Your task to perform on an android device: remove spam from my inbox in the gmail app Image 0: 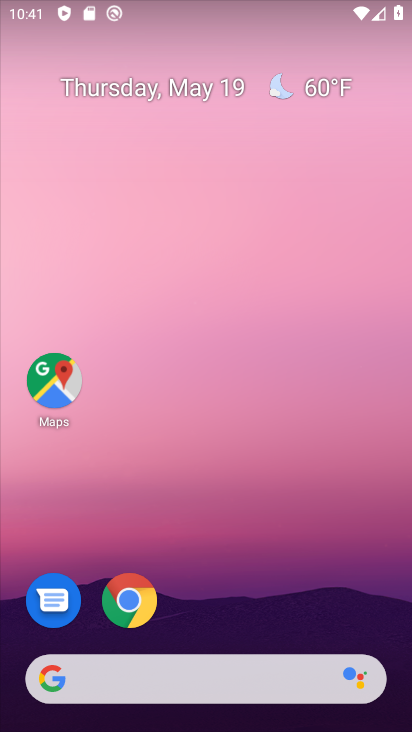
Step 0: drag from (381, 627) to (391, 412)
Your task to perform on an android device: remove spam from my inbox in the gmail app Image 1: 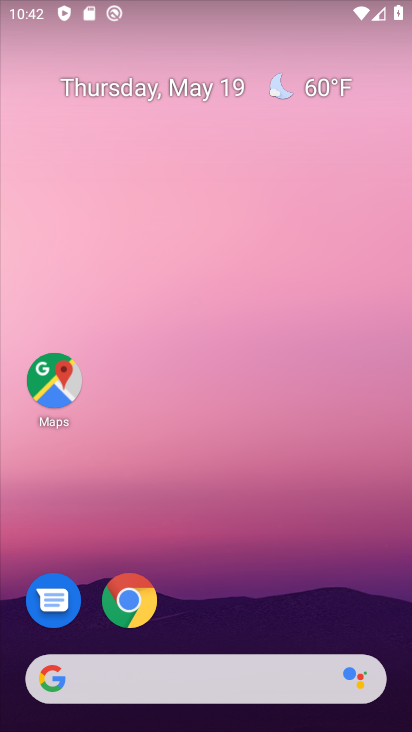
Step 1: drag from (355, 599) to (376, 240)
Your task to perform on an android device: remove spam from my inbox in the gmail app Image 2: 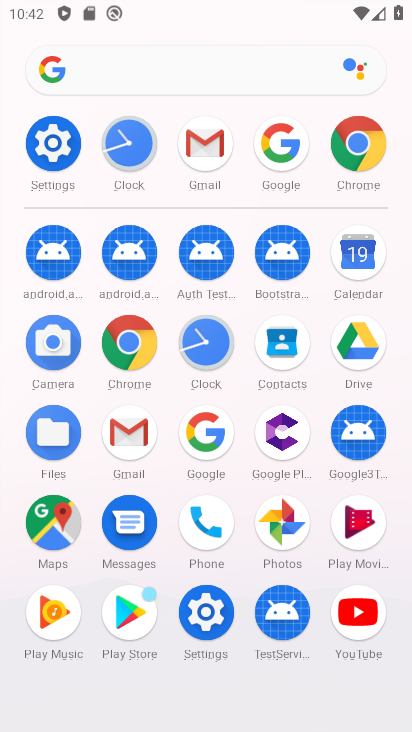
Step 2: click (143, 446)
Your task to perform on an android device: remove spam from my inbox in the gmail app Image 3: 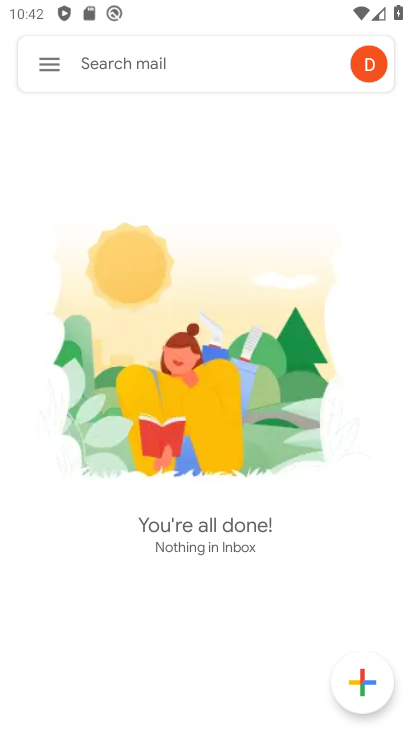
Step 3: click (66, 57)
Your task to perform on an android device: remove spam from my inbox in the gmail app Image 4: 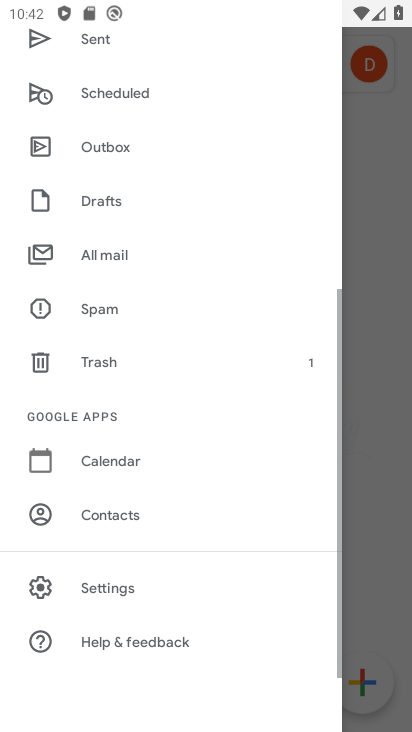
Step 4: drag from (267, 481) to (269, 344)
Your task to perform on an android device: remove spam from my inbox in the gmail app Image 5: 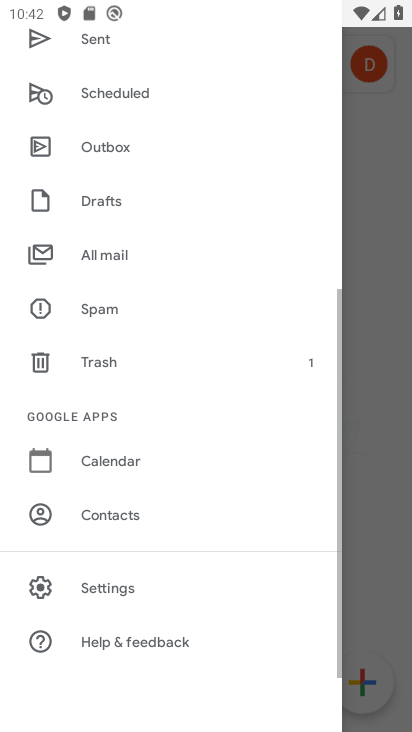
Step 5: drag from (266, 530) to (272, 391)
Your task to perform on an android device: remove spam from my inbox in the gmail app Image 6: 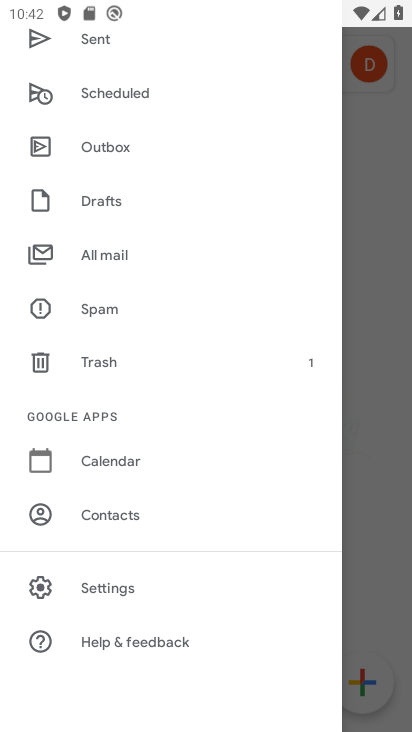
Step 6: drag from (265, 563) to (267, 446)
Your task to perform on an android device: remove spam from my inbox in the gmail app Image 7: 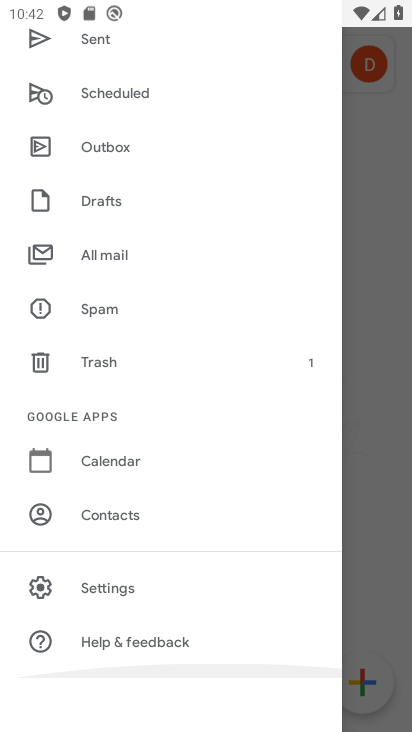
Step 7: drag from (268, 389) to (270, 480)
Your task to perform on an android device: remove spam from my inbox in the gmail app Image 8: 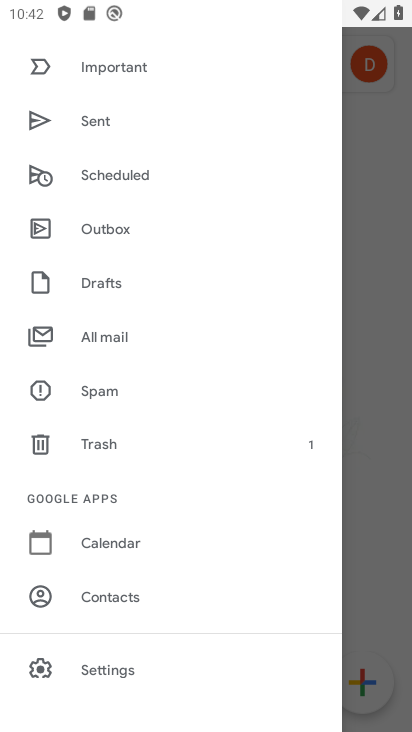
Step 8: drag from (267, 405) to (274, 485)
Your task to perform on an android device: remove spam from my inbox in the gmail app Image 9: 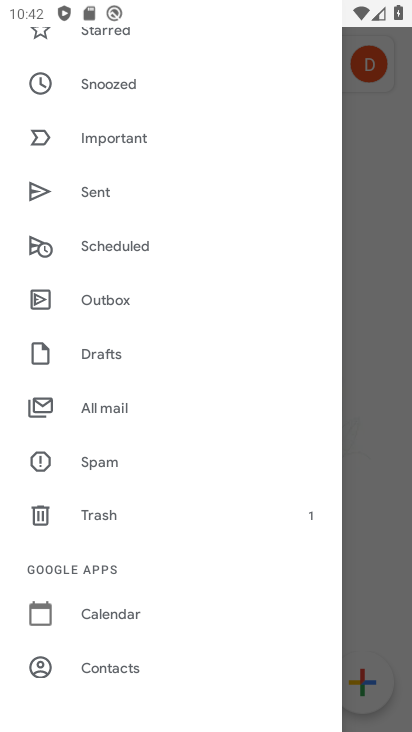
Step 9: drag from (274, 403) to (277, 500)
Your task to perform on an android device: remove spam from my inbox in the gmail app Image 10: 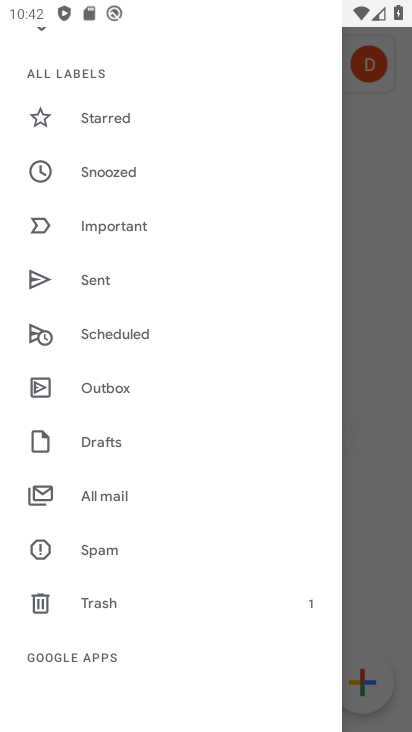
Step 10: drag from (215, 571) to (216, 485)
Your task to perform on an android device: remove spam from my inbox in the gmail app Image 11: 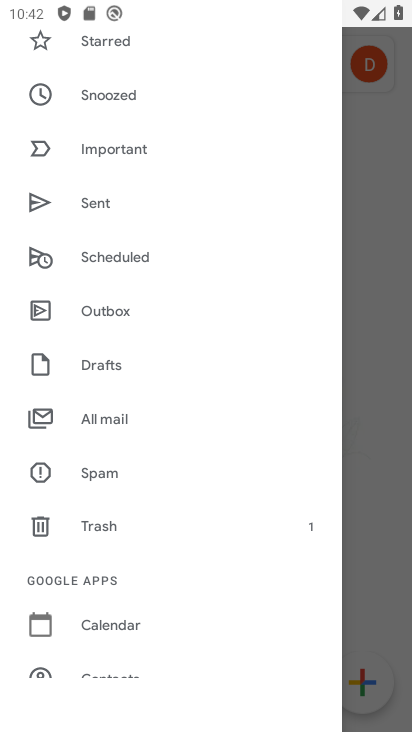
Step 11: click (147, 477)
Your task to perform on an android device: remove spam from my inbox in the gmail app Image 12: 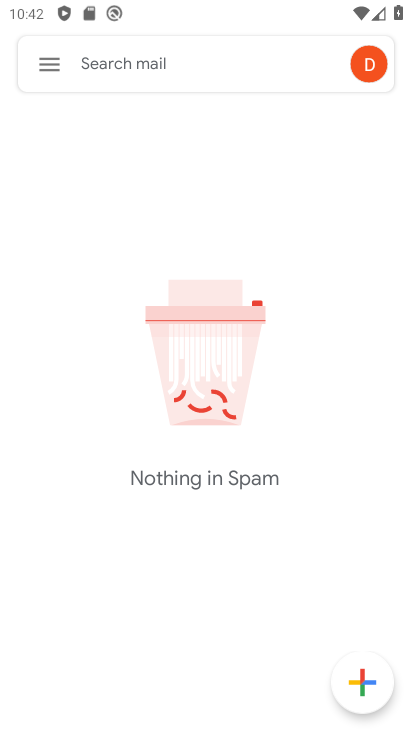
Step 12: task complete